Your task to perform on an android device: Open Google Image 0: 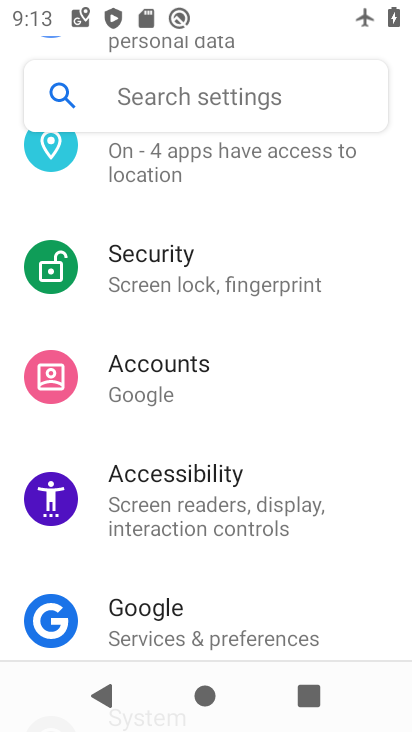
Step 0: click (249, 478)
Your task to perform on an android device: Open Google Image 1: 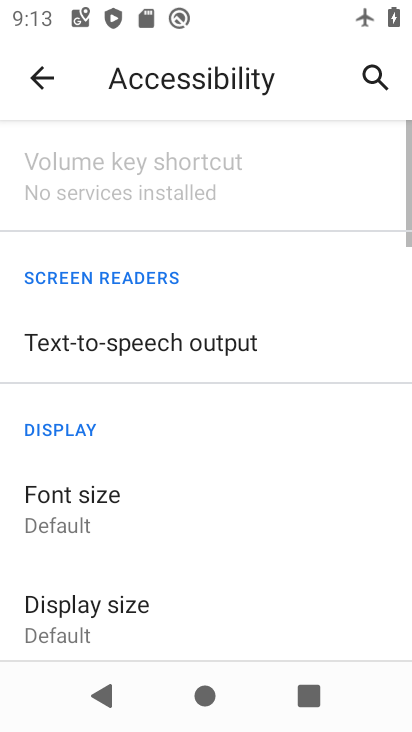
Step 1: press home button
Your task to perform on an android device: Open Google Image 2: 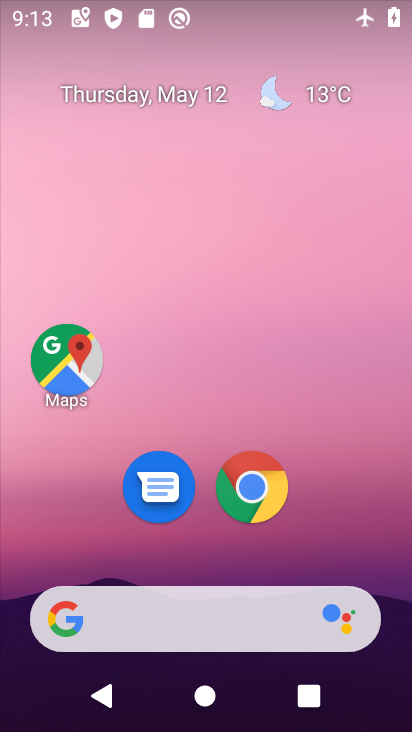
Step 2: click (192, 641)
Your task to perform on an android device: Open Google Image 3: 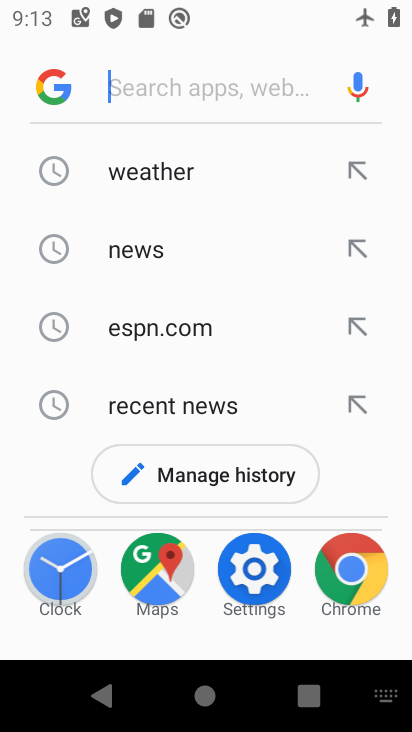
Step 3: task complete